Your task to perform on an android device: Open Google Chrome and click the shortcut for Amazon.com Image 0: 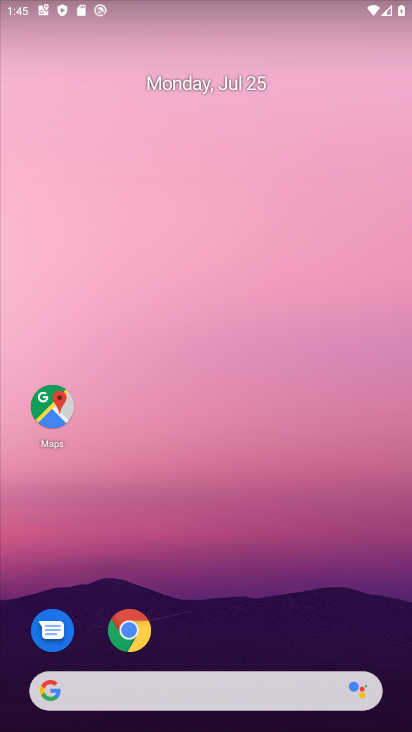
Step 0: click (122, 620)
Your task to perform on an android device: Open Google Chrome and click the shortcut for Amazon.com Image 1: 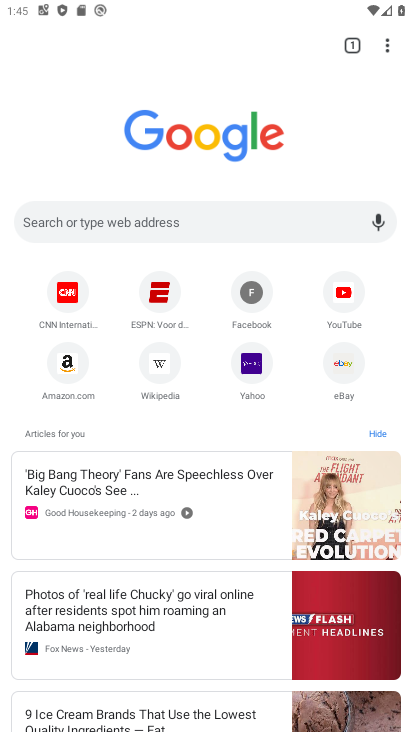
Step 1: click (77, 380)
Your task to perform on an android device: Open Google Chrome and click the shortcut for Amazon.com Image 2: 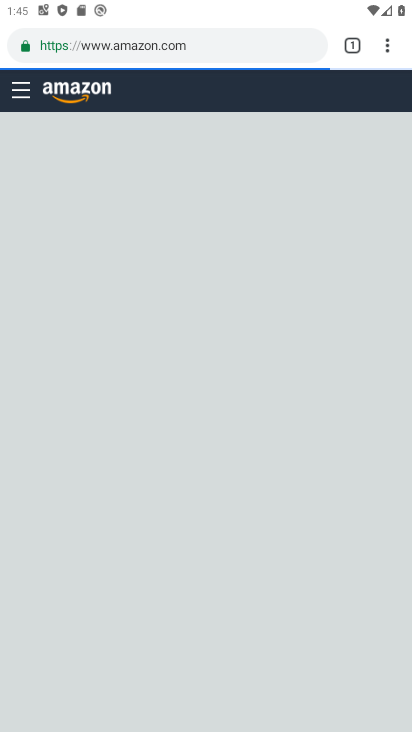
Step 2: task complete